Your task to perform on an android device: turn on improve location accuracy Image 0: 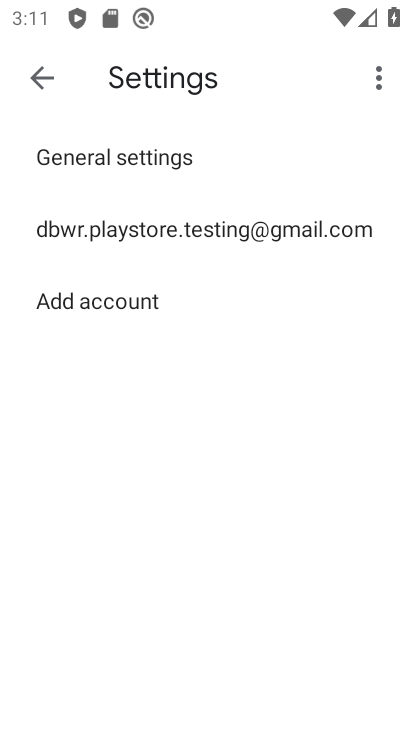
Step 0: press home button
Your task to perform on an android device: turn on improve location accuracy Image 1: 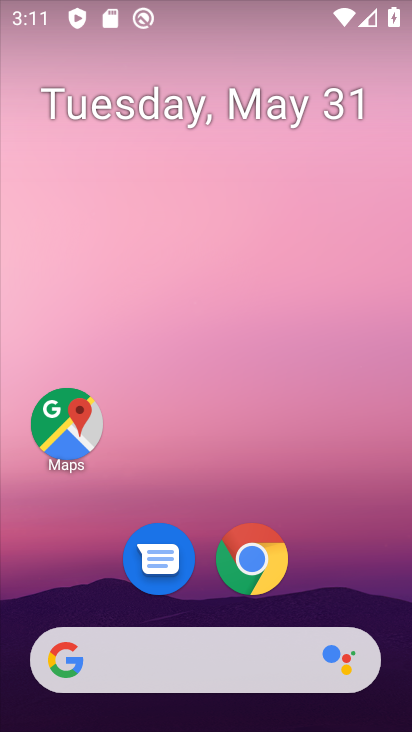
Step 1: drag from (237, 722) to (233, 617)
Your task to perform on an android device: turn on improve location accuracy Image 2: 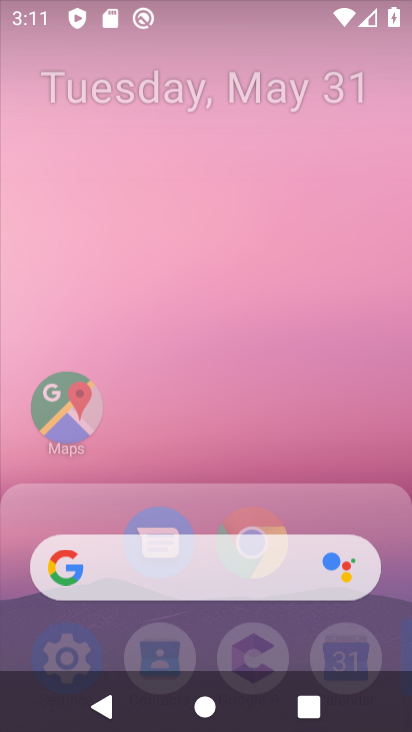
Step 2: drag from (234, 156) to (233, 108)
Your task to perform on an android device: turn on improve location accuracy Image 3: 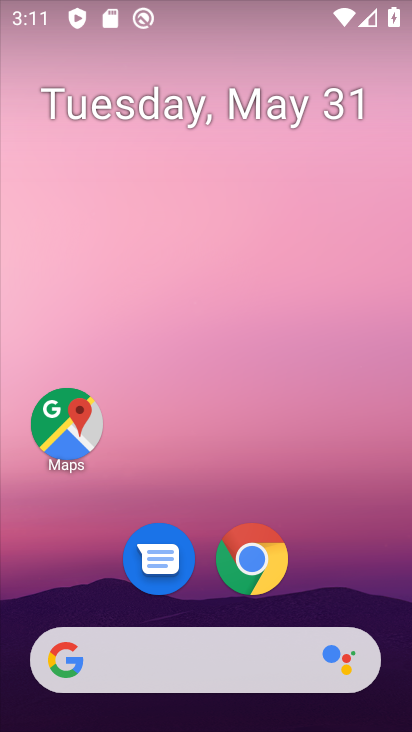
Step 3: drag from (192, 724) to (192, 588)
Your task to perform on an android device: turn on improve location accuracy Image 4: 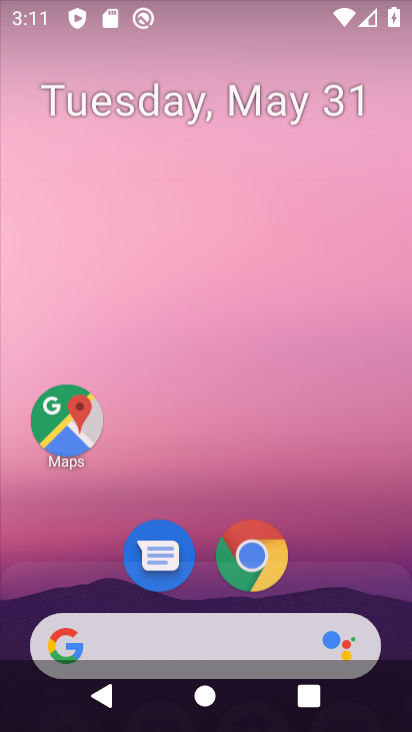
Step 4: click (195, 124)
Your task to perform on an android device: turn on improve location accuracy Image 5: 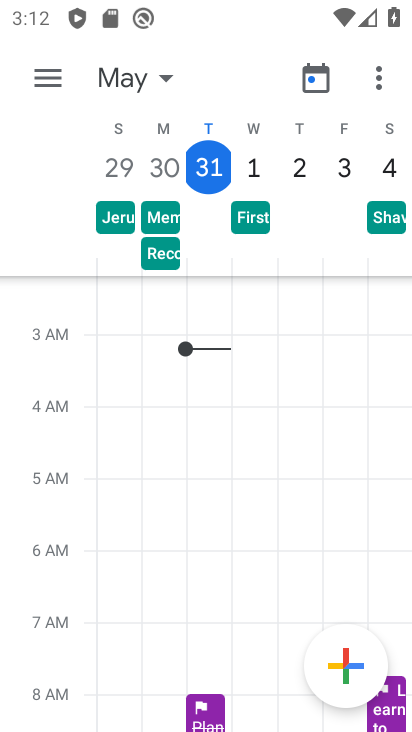
Step 5: press home button
Your task to perform on an android device: turn on improve location accuracy Image 6: 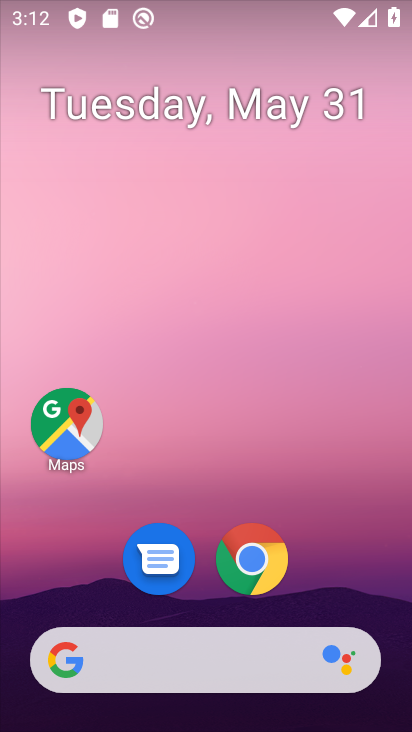
Step 6: drag from (185, 701) to (177, 170)
Your task to perform on an android device: turn on improve location accuracy Image 7: 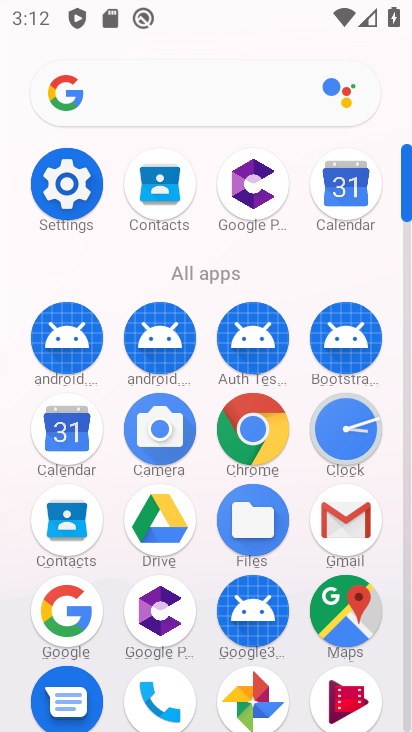
Step 7: click (67, 189)
Your task to perform on an android device: turn on improve location accuracy Image 8: 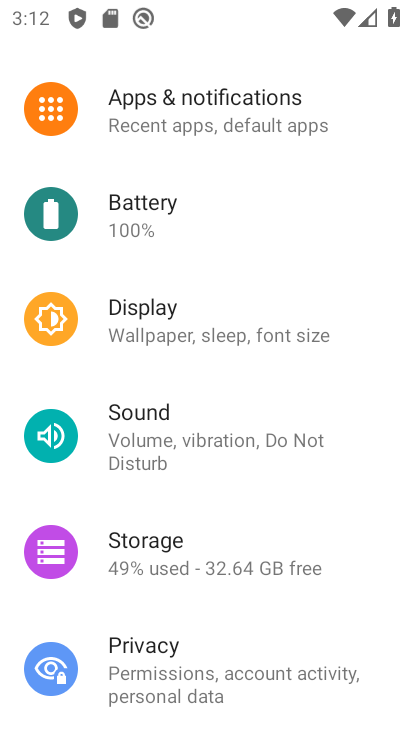
Step 8: drag from (225, 699) to (239, 275)
Your task to perform on an android device: turn on improve location accuracy Image 9: 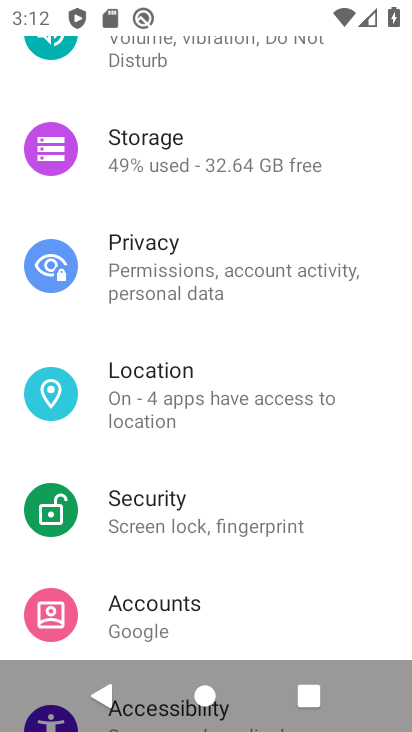
Step 9: click (140, 387)
Your task to perform on an android device: turn on improve location accuracy Image 10: 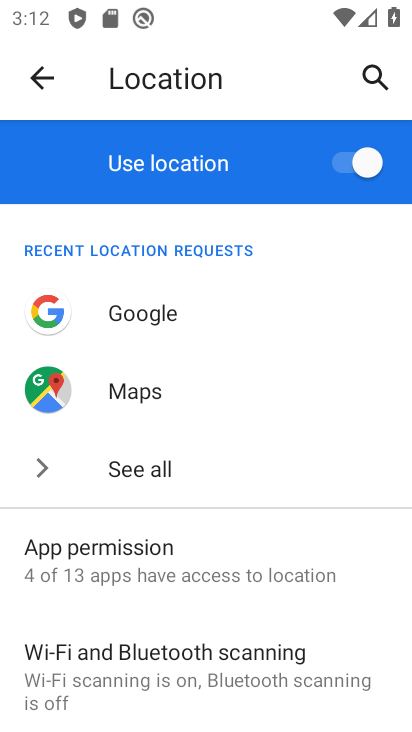
Step 10: drag from (228, 714) to (239, 281)
Your task to perform on an android device: turn on improve location accuracy Image 11: 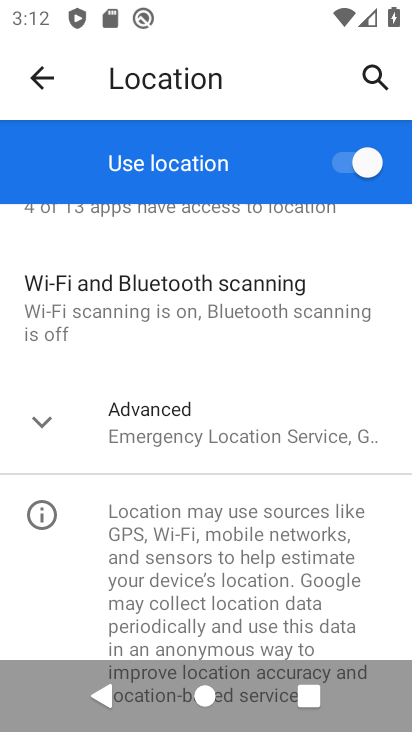
Step 11: click (175, 423)
Your task to perform on an android device: turn on improve location accuracy Image 12: 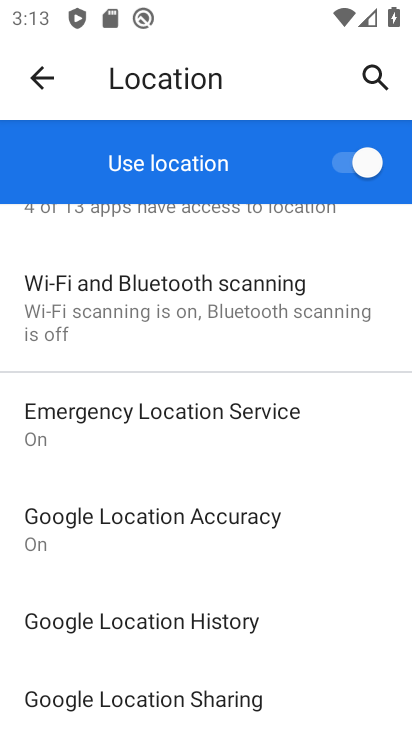
Step 12: click (200, 514)
Your task to perform on an android device: turn on improve location accuracy Image 13: 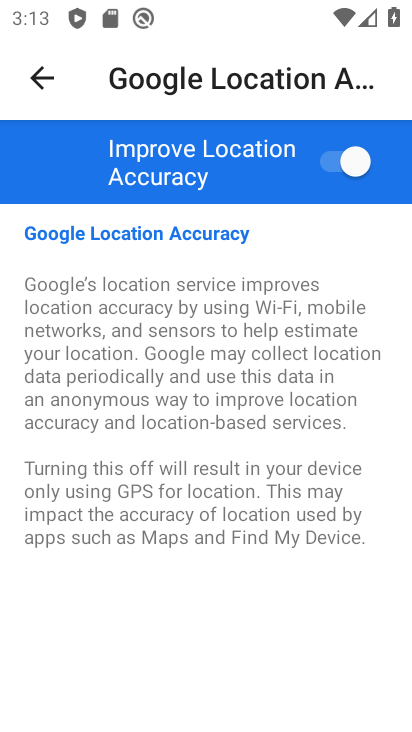
Step 13: task complete